Your task to perform on an android device: find snoozed emails in the gmail app Image 0: 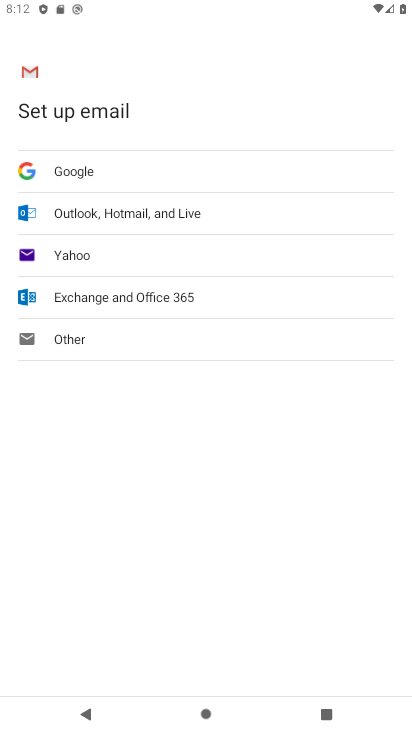
Step 0: press home button
Your task to perform on an android device: find snoozed emails in the gmail app Image 1: 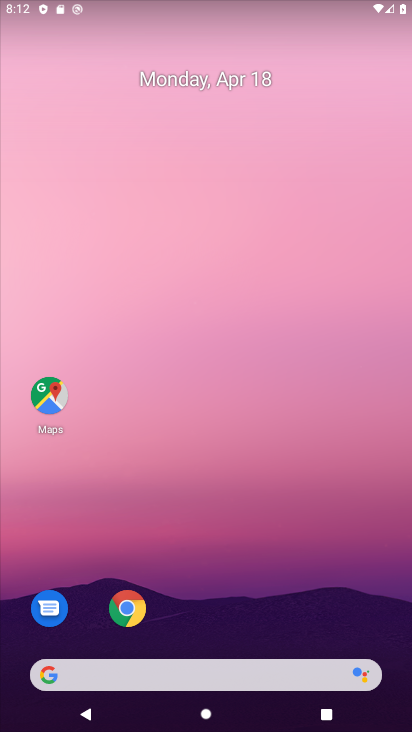
Step 1: drag from (207, 579) to (217, 133)
Your task to perform on an android device: find snoozed emails in the gmail app Image 2: 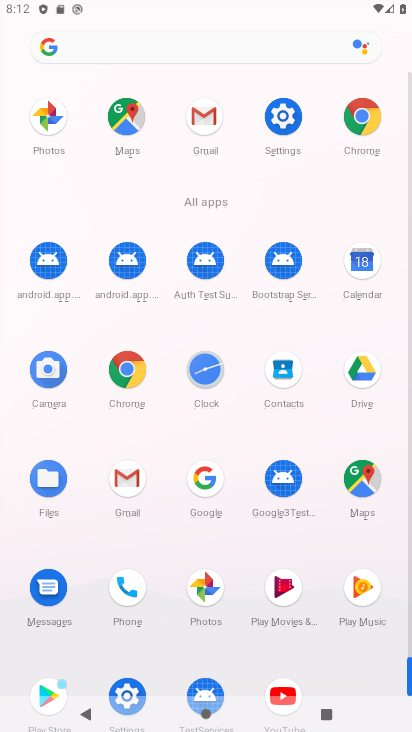
Step 2: click (202, 118)
Your task to perform on an android device: find snoozed emails in the gmail app Image 3: 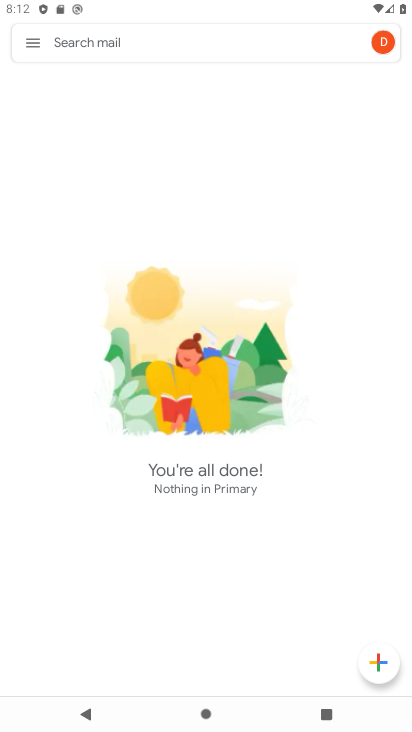
Step 3: click (39, 48)
Your task to perform on an android device: find snoozed emails in the gmail app Image 4: 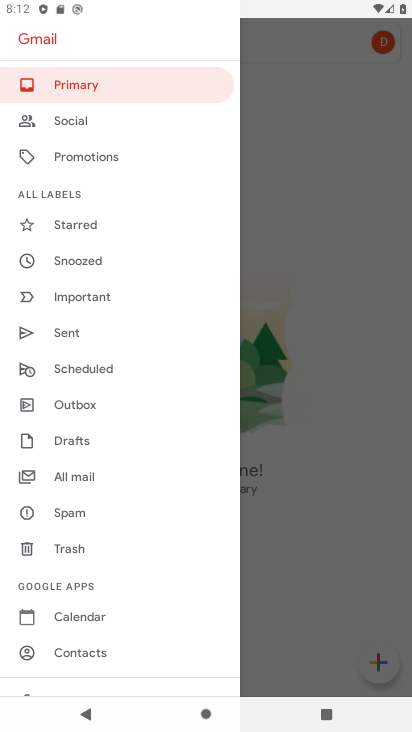
Step 4: click (80, 263)
Your task to perform on an android device: find snoozed emails in the gmail app Image 5: 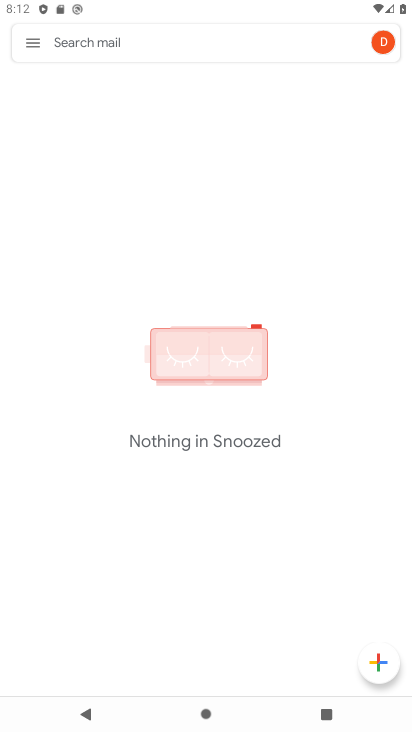
Step 5: task complete